Your task to perform on an android device: turn pop-ups off in chrome Image 0: 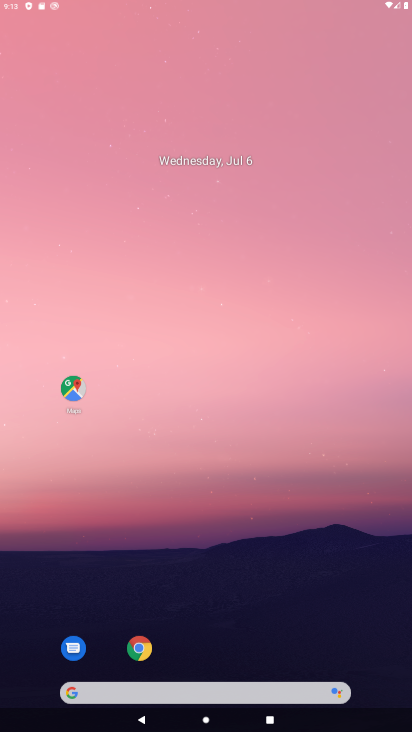
Step 0: drag from (217, 522) to (219, 59)
Your task to perform on an android device: turn pop-ups off in chrome Image 1: 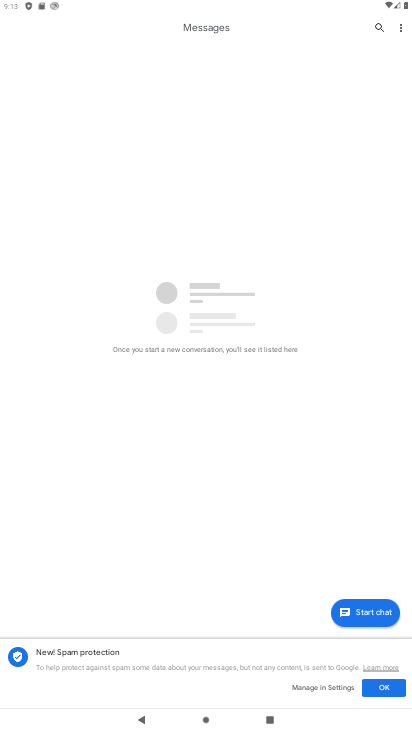
Step 1: press home button
Your task to perform on an android device: turn pop-ups off in chrome Image 2: 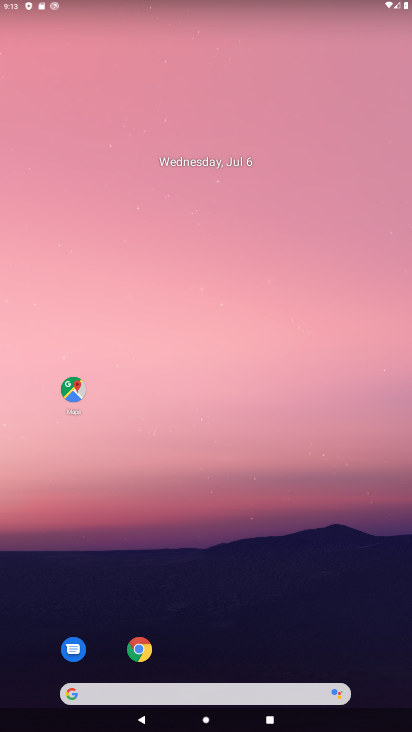
Step 2: drag from (202, 658) to (200, 97)
Your task to perform on an android device: turn pop-ups off in chrome Image 3: 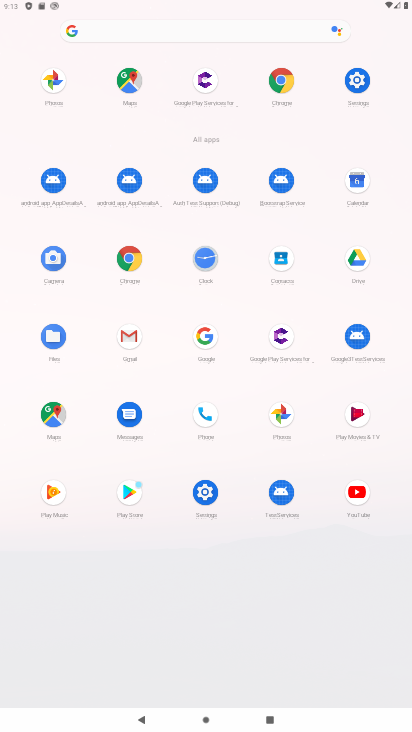
Step 3: click (280, 76)
Your task to perform on an android device: turn pop-ups off in chrome Image 4: 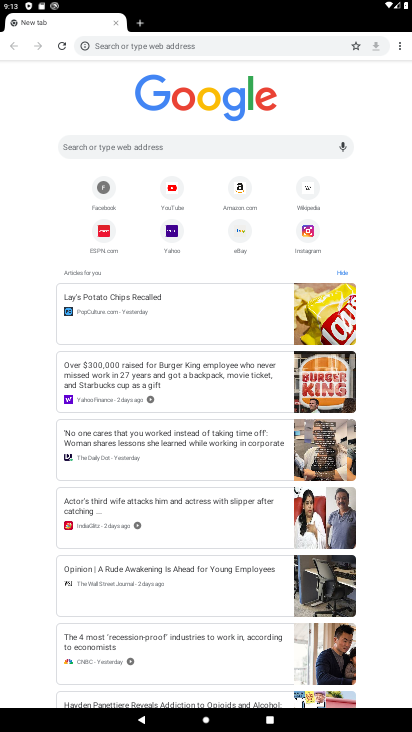
Step 4: click (404, 43)
Your task to perform on an android device: turn pop-ups off in chrome Image 5: 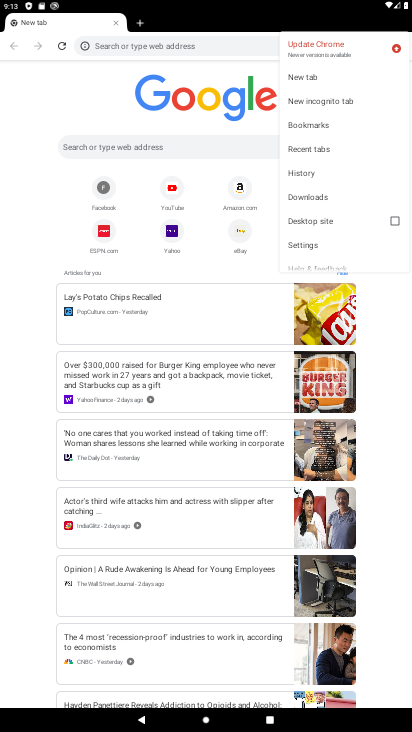
Step 5: click (323, 249)
Your task to perform on an android device: turn pop-ups off in chrome Image 6: 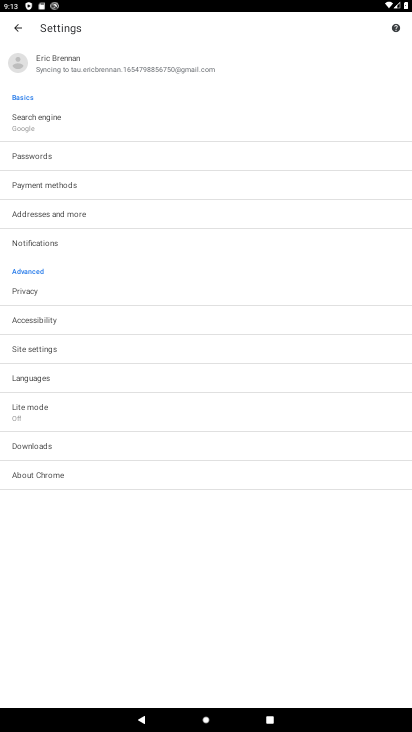
Step 6: click (64, 350)
Your task to perform on an android device: turn pop-ups off in chrome Image 7: 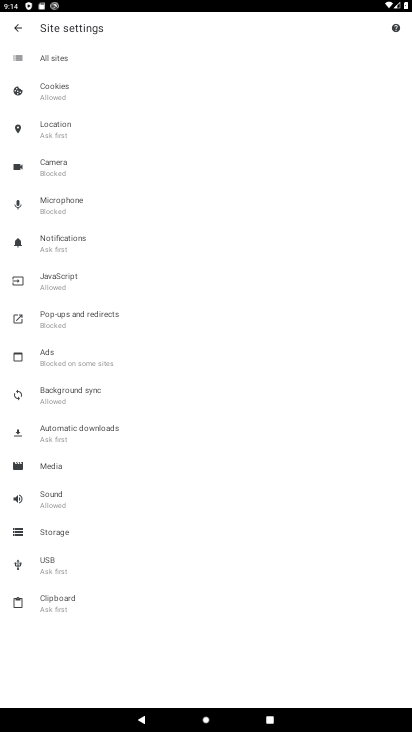
Step 7: click (69, 317)
Your task to perform on an android device: turn pop-ups off in chrome Image 8: 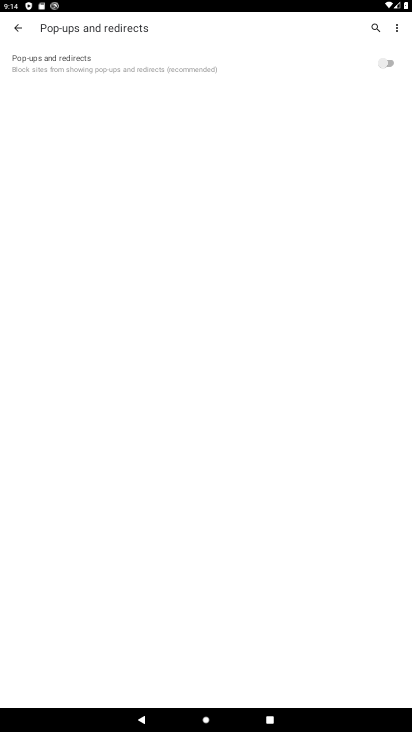
Step 8: task complete